Your task to perform on an android device: Go to Reddit.com Image 0: 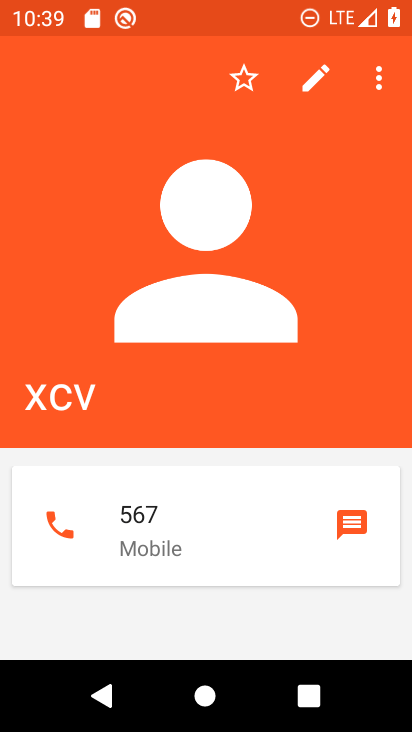
Step 0: press home button
Your task to perform on an android device: Go to Reddit.com Image 1: 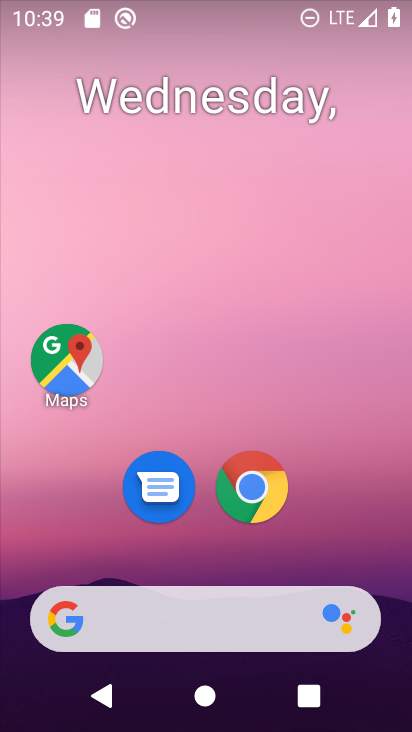
Step 1: click (253, 485)
Your task to perform on an android device: Go to Reddit.com Image 2: 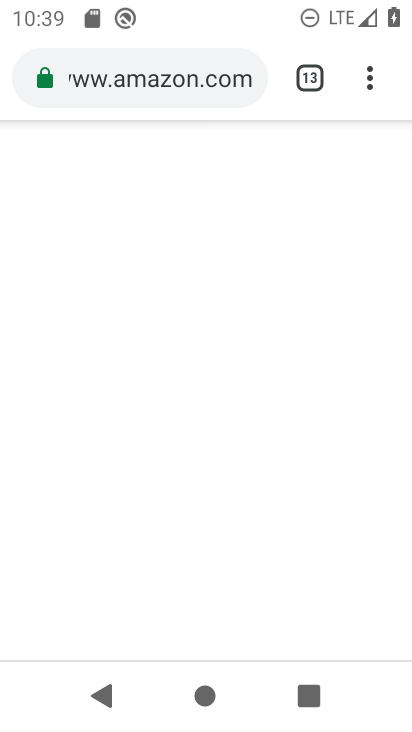
Step 2: click (371, 62)
Your task to perform on an android device: Go to Reddit.com Image 3: 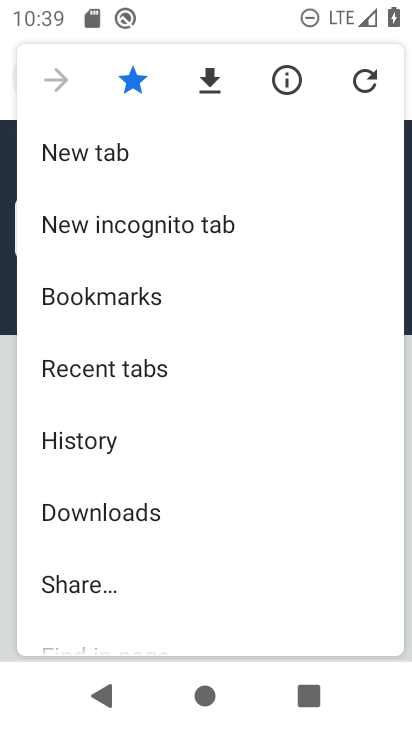
Step 3: click (99, 145)
Your task to perform on an android device: Go to Reddit.com Image 4: 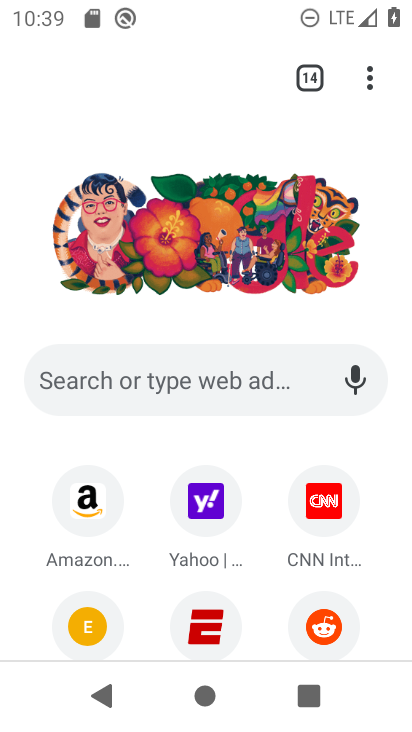
Step 4: click (157, 367)
Your task to perform on an android device: Go to Reddit.com Image 5: 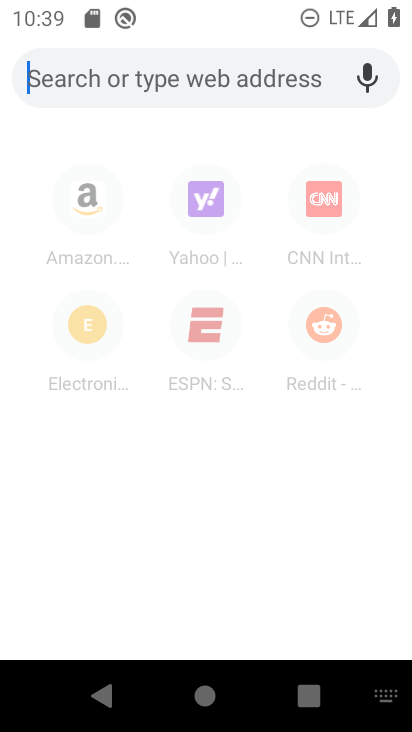
Step 5: click (328, 332)
Your task to perform on an android device: Go to Reddit.com Image 6: 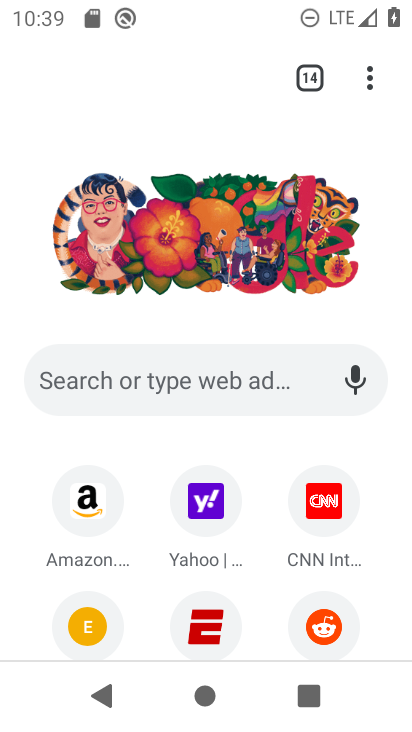
Step 6: click (317, 618)
Your task to perform on an android device: Go to Reddit.com Image 7: 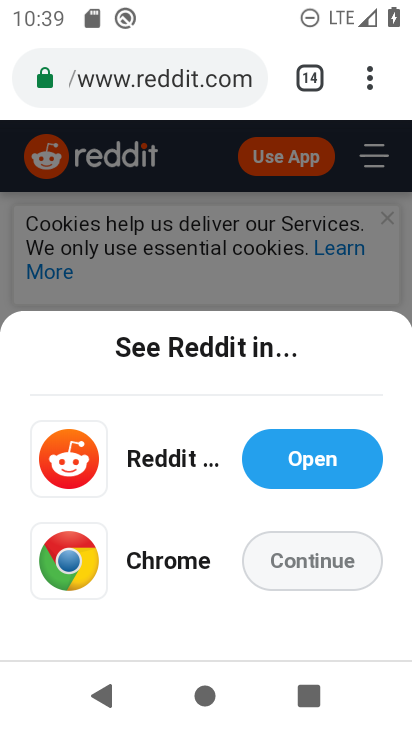
Step 7: click (313, 559)
Your task to perform on an android device: Go to Reddit.com Image 8: 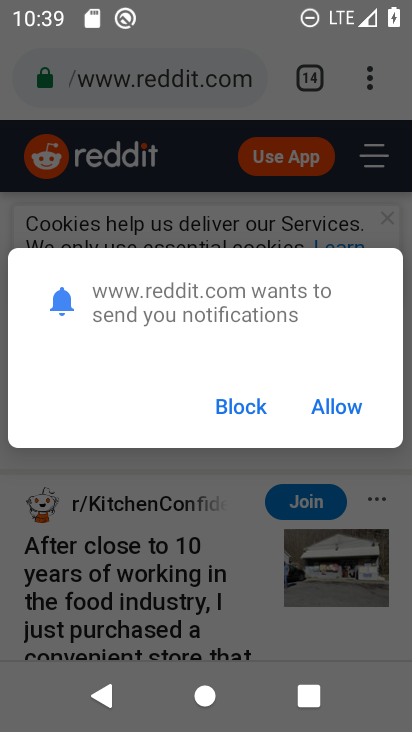
Step 8: click (335, 405)
Your task to perform on an android device: Go to Reddit.com Image 9: 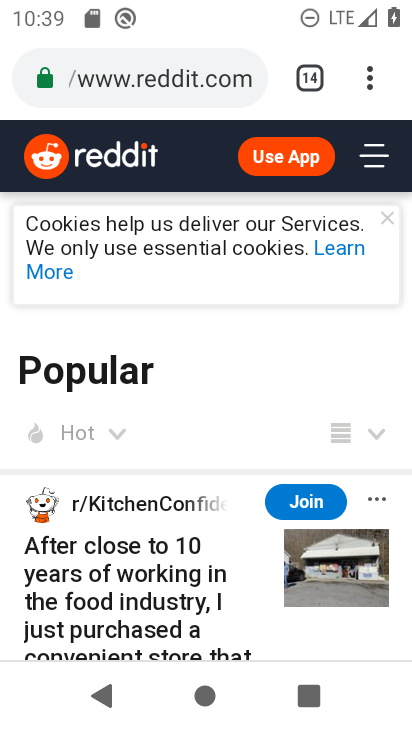
Step 9: task complete